Your task to perform on an android device: change timer sound Image 0: 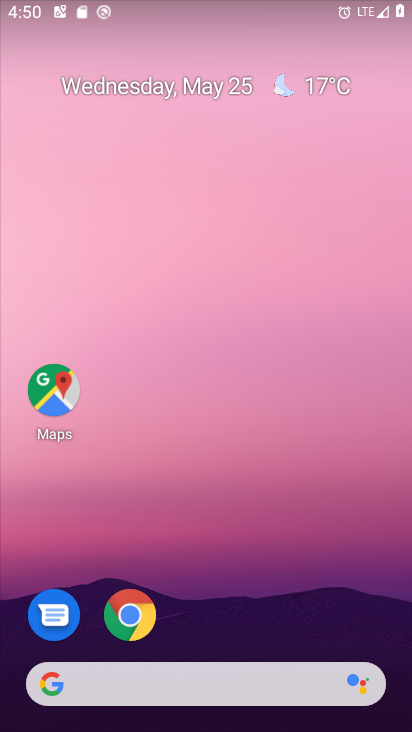
Step 0: drag from (289, 521) to (144, 52)
Your task to perform on an android device: change timer sound Image 1: 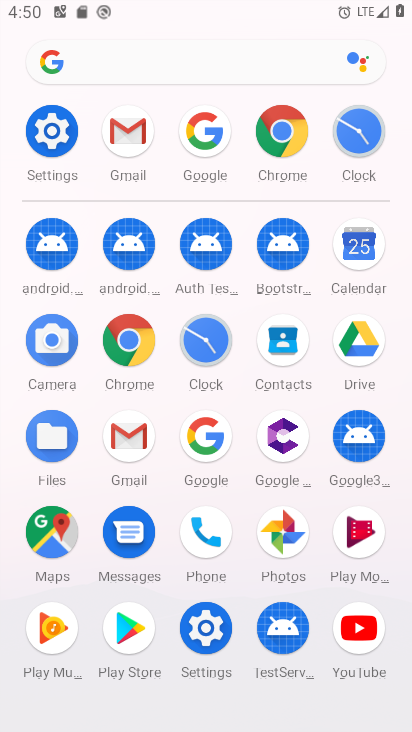
Step 1: click (347, 148)
Your task to perform on an android device: change timer sound Image 2: 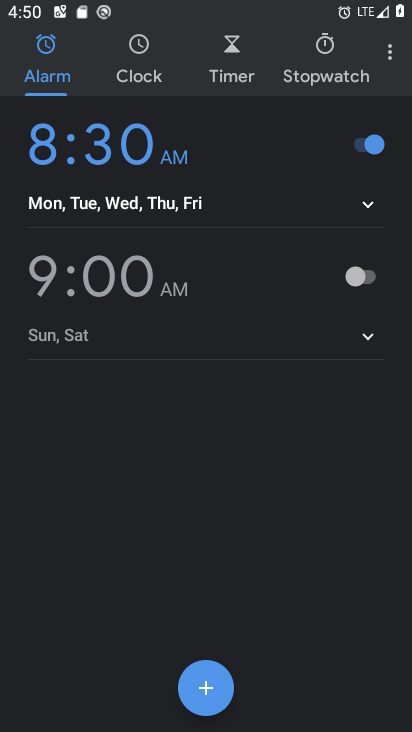
Step 2: click (241, 65)
Your task to perform on an android device: change timer sound Image 3: 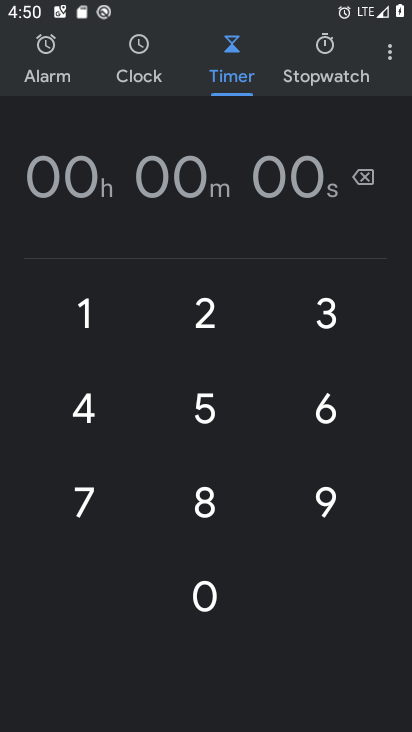
Step 3: click (394, 54)
Your task to perform on an android device: change timer sound Image 4: 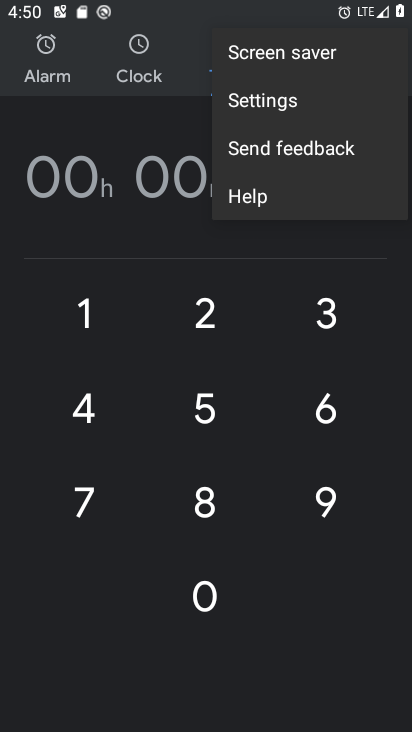
Step 4: click (276, 105)
Your task to perform on an android device: change timer sound Image 5: 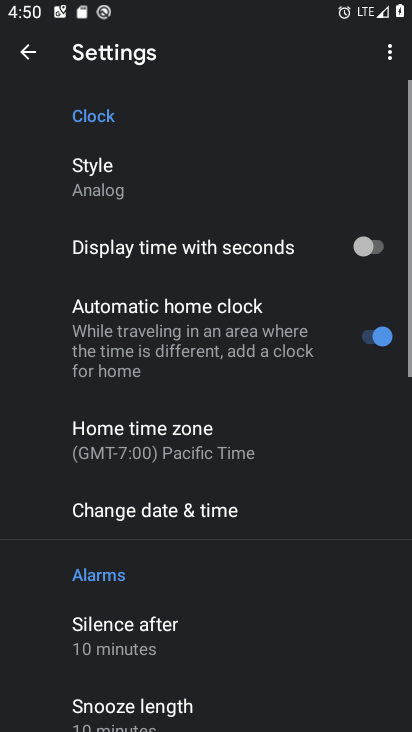
Step 5: drag from (244, 680) to (206, 104)
Your task to perform on an android device: change timer sound Image 6: 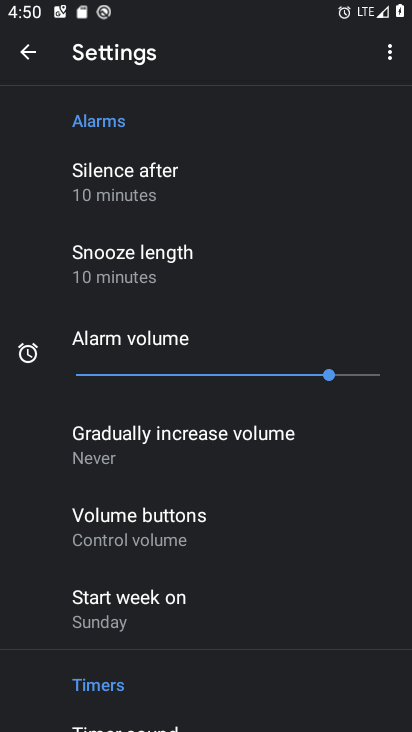
Step 6: drag from (264, 668) to (243, 102)
Your task to perform on an android device: change timer sound Image 7: 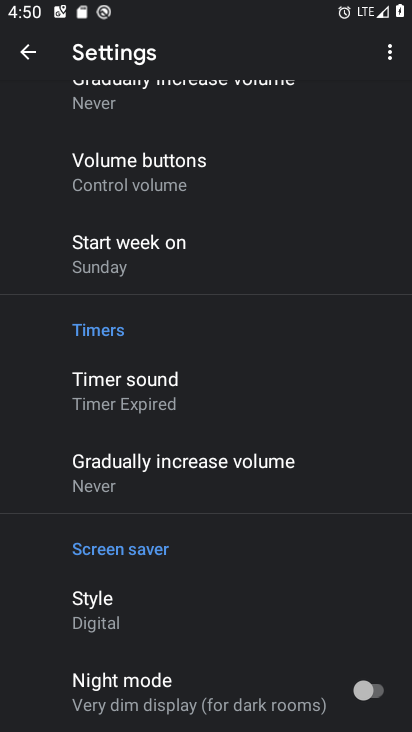
Step 7: click (172, 392)
Your task to perform on an android device: change timer sound Image 8: 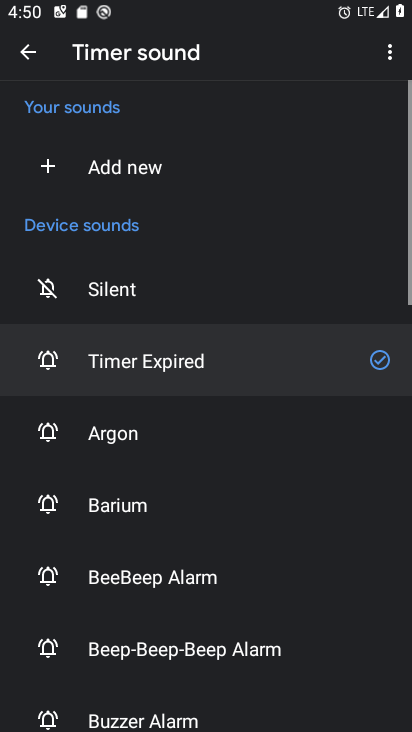
Step 8: click (211, 443)
Your task to perform on an android device: change timer sound Image 9: 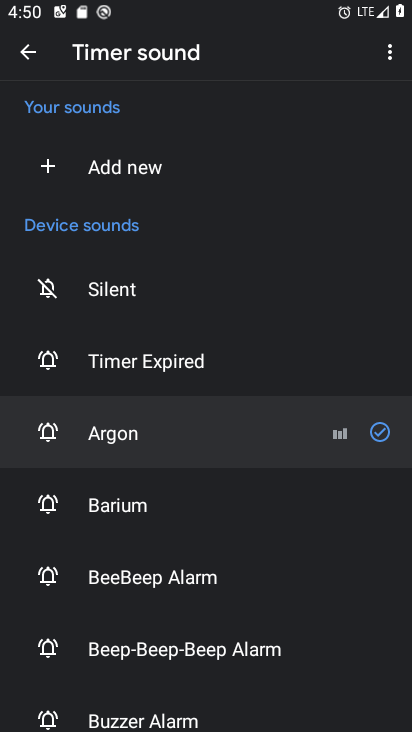
Step 9: task complete